Your task to perform on an android device: Open CNN.com Image 0: 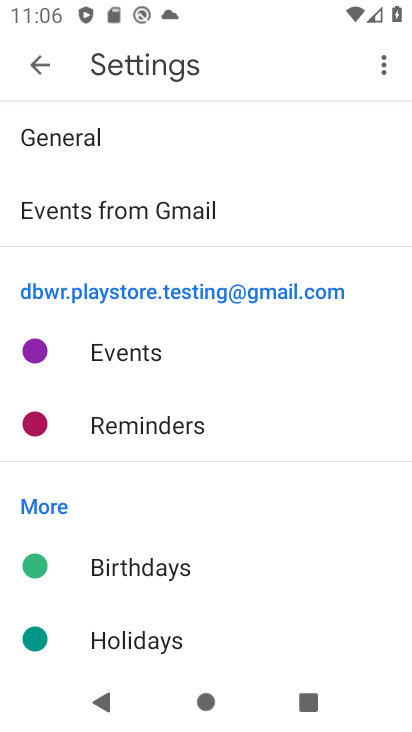
Step 0: press home button
Your task to perform on an android device: Open CNN.com Image 1: 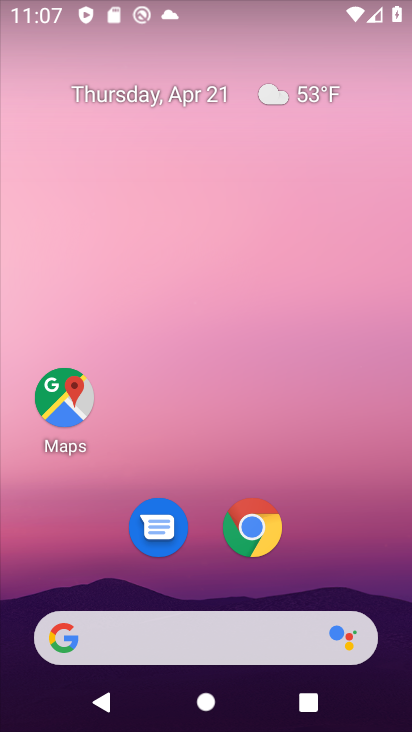
Step 1: drag from (358, 529) to (354, 79)
Your task to perform on an android device: Open CNN.com Image 2: 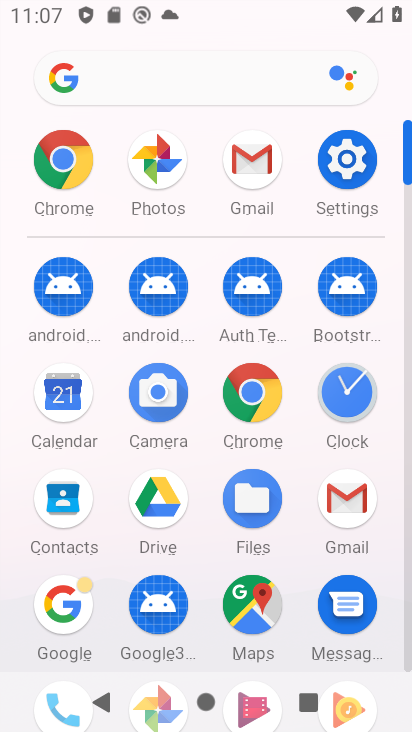
Step 2: click (242, 408)
Your task to perform on an android device: Open CNN.com Image 3: 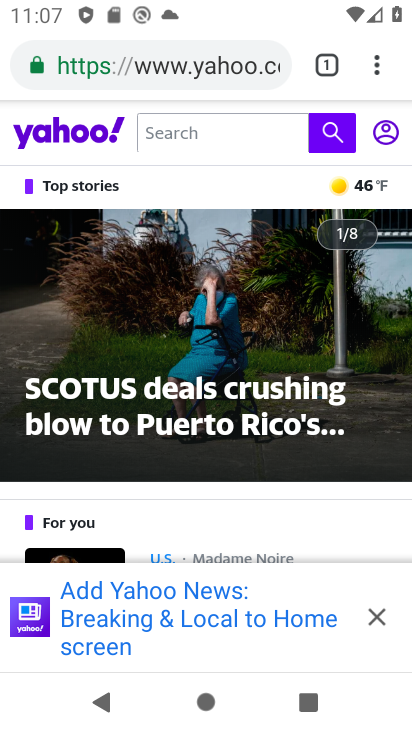
Step 3: press back button
Your task to perform on an android device: Open CNN.com Image 4: 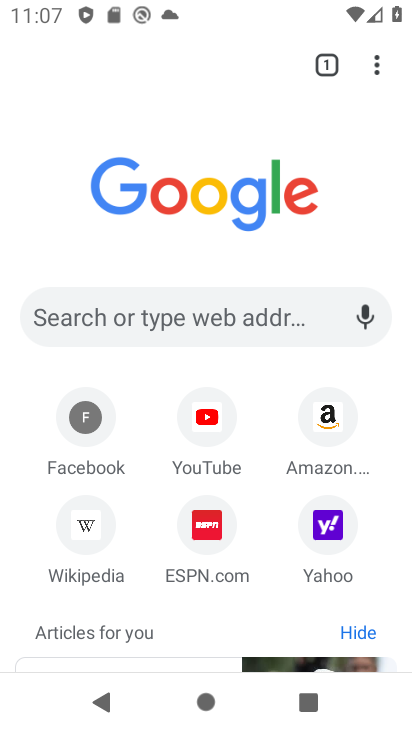
Step 4: click (199, 317)
Your task to perform on an android device: Open CNN.com Image 5: 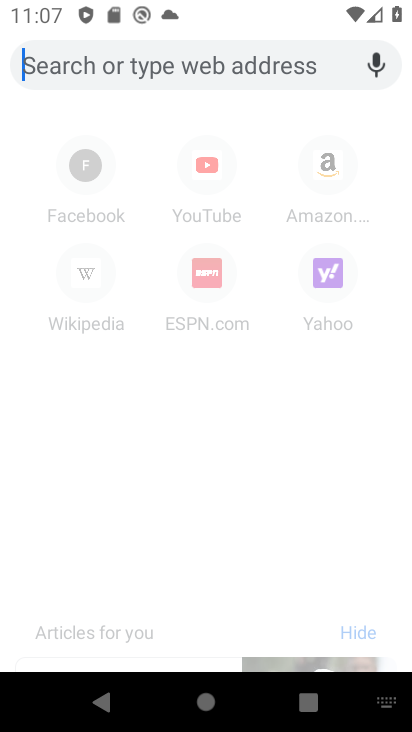
Step 5: type "cnn.com"
Your task to perform on an android device: Open CNN.com Image 6: 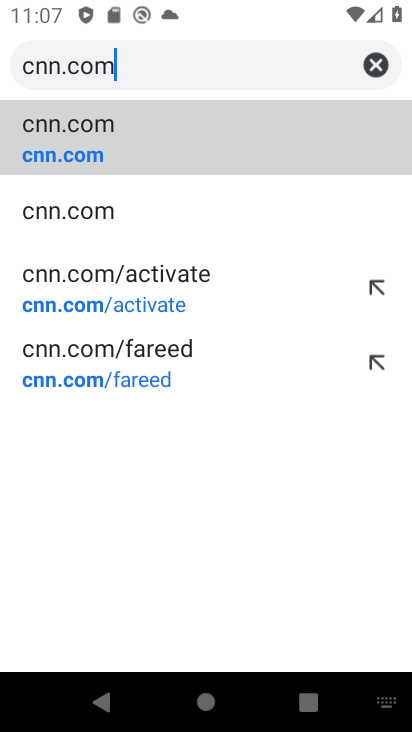
Step 6: click (126, 208)
Your task to perform on an android device: Open CNN.com Image 7: 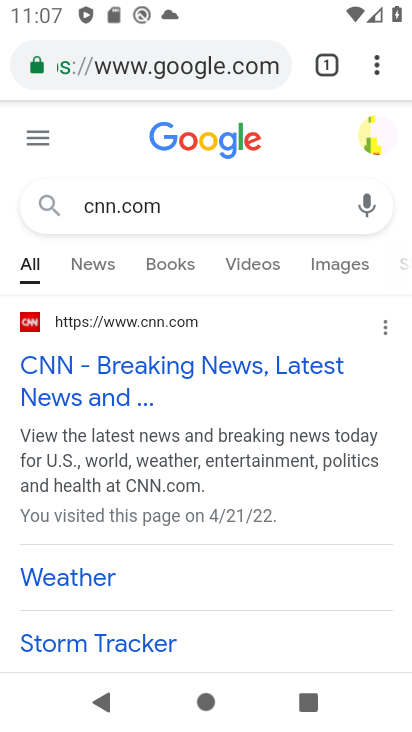
Step 7: task complete